Your task to perform on an android device: Open the map Image 0: 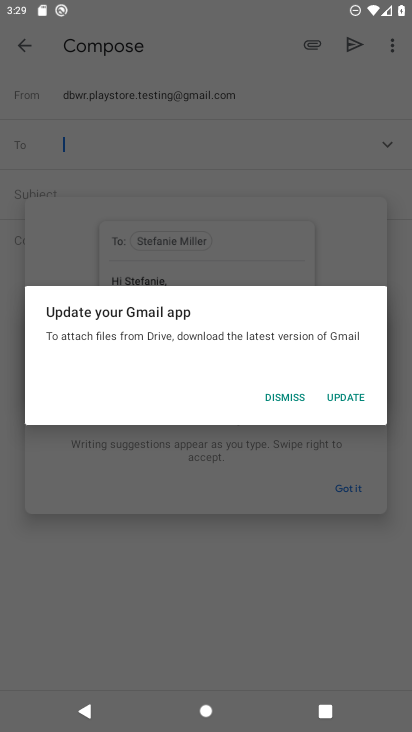
Step 0: press home button
Your task to perform on an android device: Open the map Image 1: 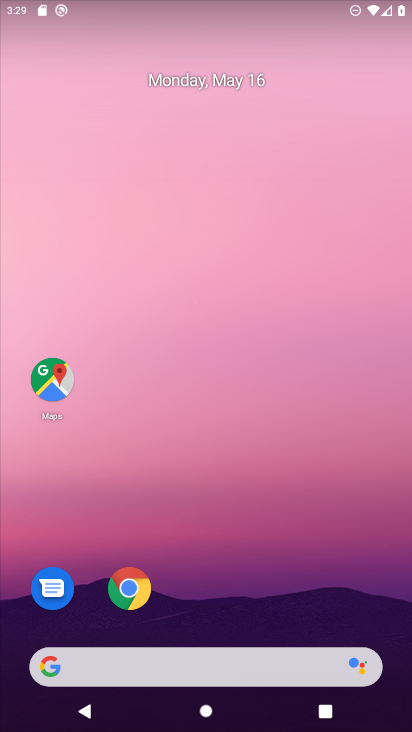
Step 1: click (52, 382)
Your task to perform on an android device: Open the map Image 2: 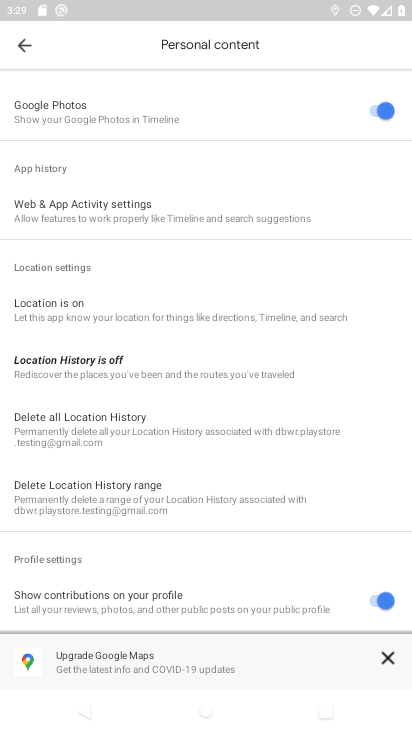
Step 2: task complete